Your task to perform on an android device: open a bookmark in the chrome app Image 0: 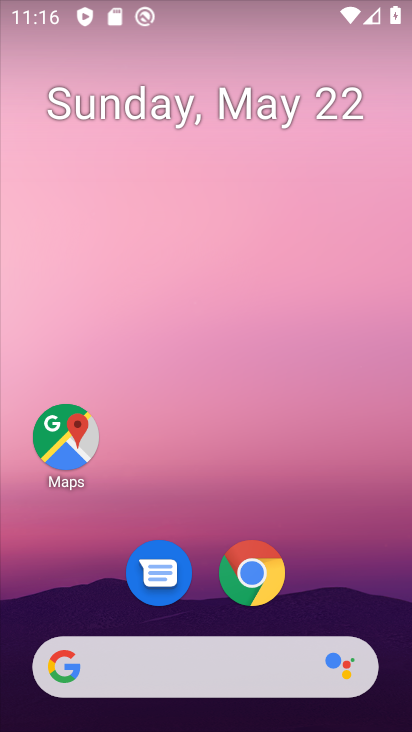
Step 0: click (252, 567)
Your task to perform on an android device: open a bookmark in the chrome app Image 1: 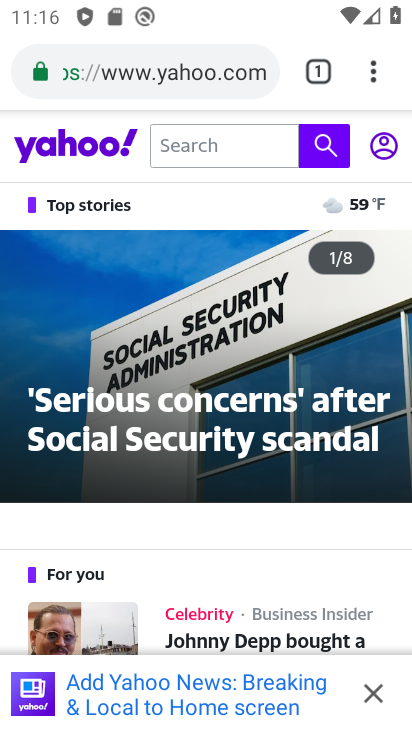
Step 1: click (374, 67)
Your task to perform on an android device: open a bookmark in the chrome app Image 2: 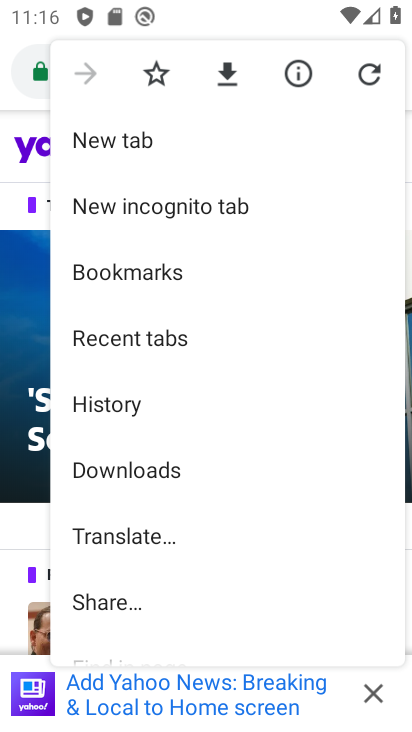
Step 2: click (161, 270)
Your task to perform on an android device: open a bookmark in the chrome app Image 3: 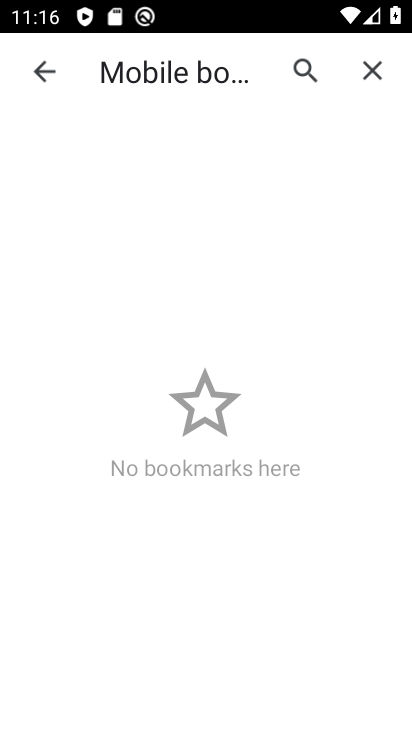
Step 3: task complete